Your task to perform on an android device: open app "Microsoft Authenticator" (install if not already installed) and go to login screen Image 0: 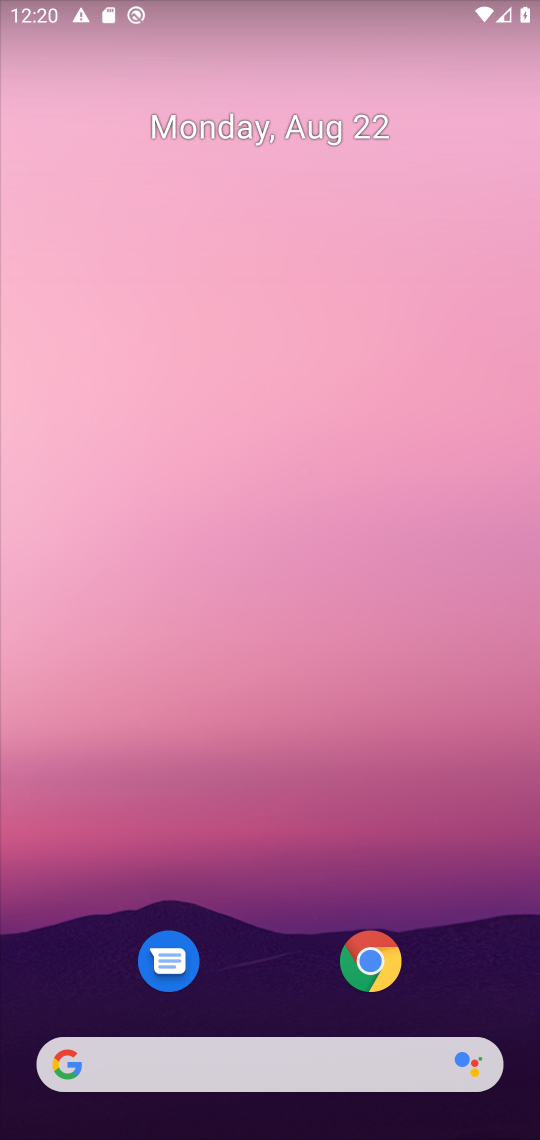
Step 0: press home button
Your task to perform on an android device: open app "Microsoft Authenticator" (install if not already installed) and go to login screen Image 1: 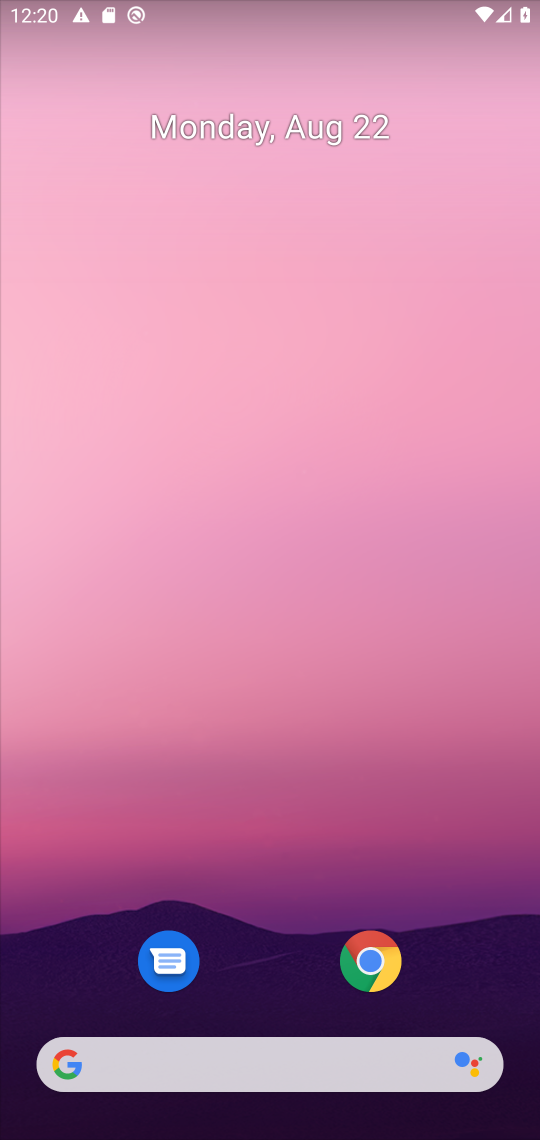
Step 1: drag from (468, 991) to (440, 71)
Your task to perform on an android device: open app "Microsoft Authenticator" (install if not already installed) and go to login screen Image 2: 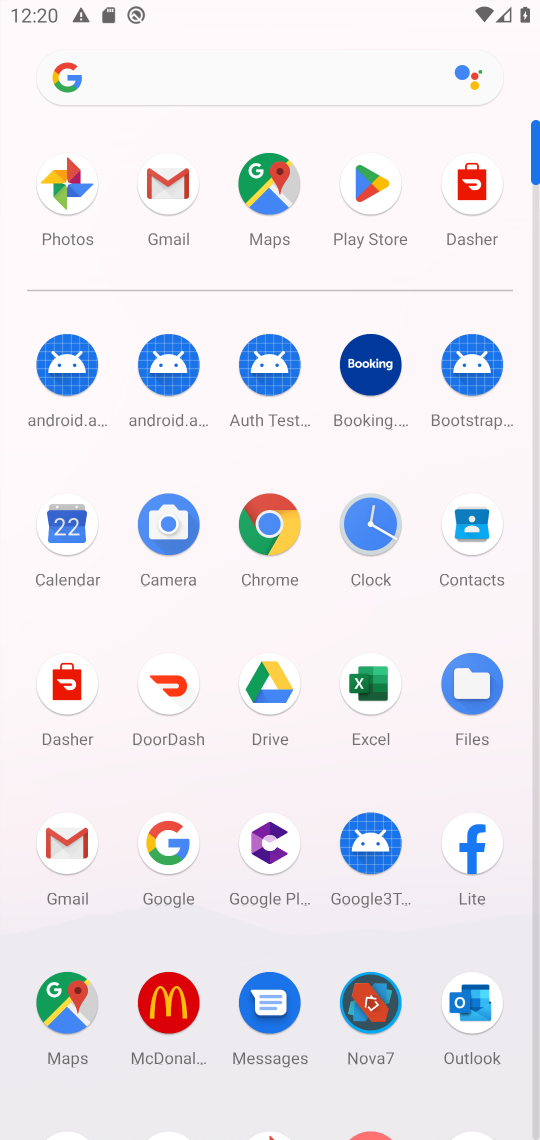
Step 2: click (376, 185)
Your task to perform on an android device: open app "Microsoft Authenticator" (install if not already installed) and go to login screen Image 3: 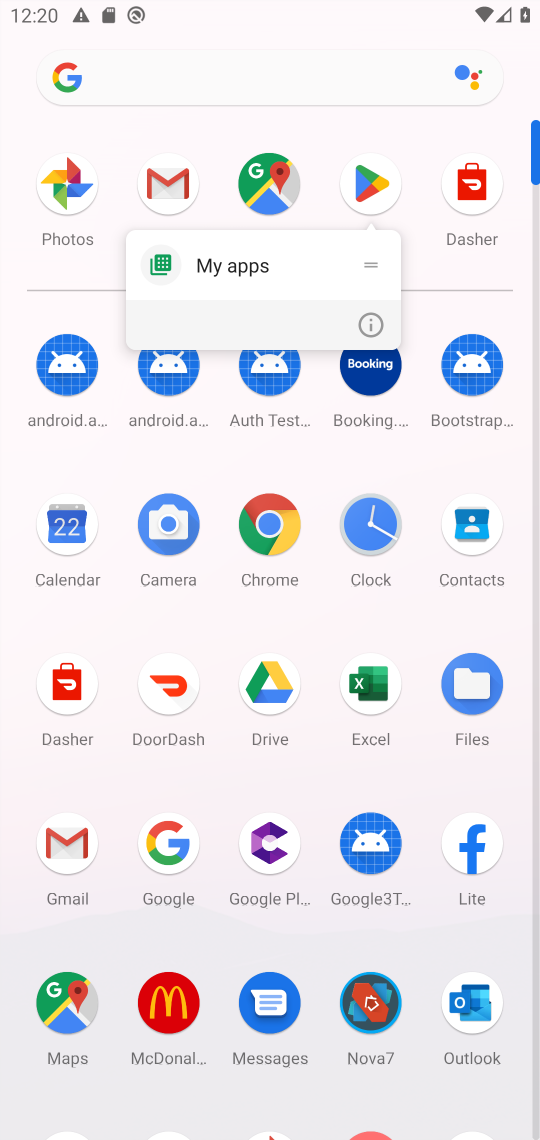
Step 3: click (376, 185)
Your task to perform on an android device: open app "Microsoft Authenticator" (install if not already installed) and go to login screen Image 4: 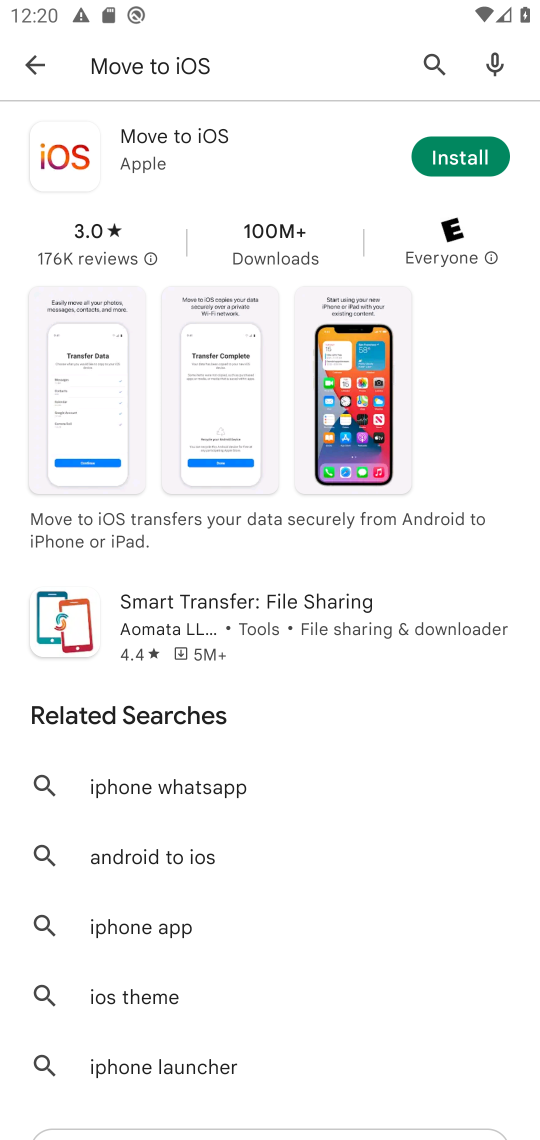
Step 4: press back button
Your task to perform on an android device: open app "Microsoft Authenticator" (install if not already installed) and go to login screen Image 5: 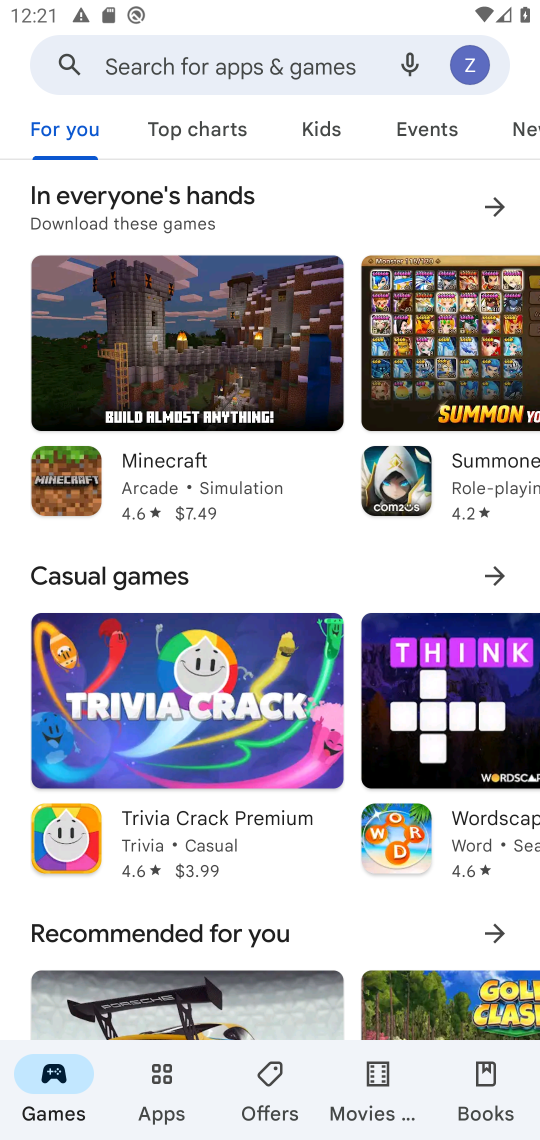
Step 5: click (277, 65)
Your task to perform on an android device: open app "Microsoft Authenticator" (install if not already installed) and go to login screen Image 6: 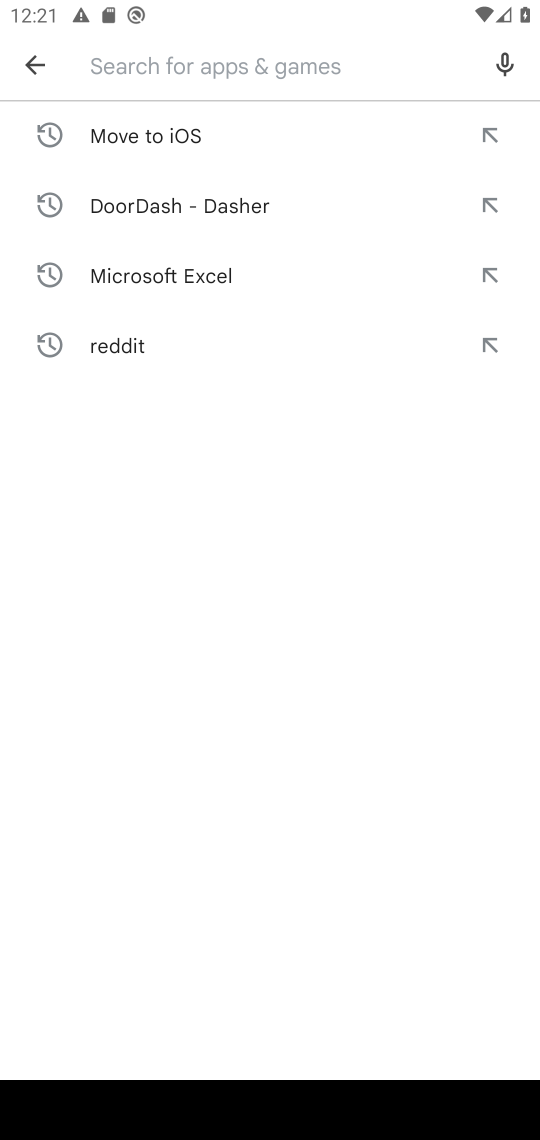
Step 6: type "Microsoft Authenticator"
Your task to perform on an android device: open app "Microsoft Authenticator" (install if not already installed) and go to login screen Image 7: 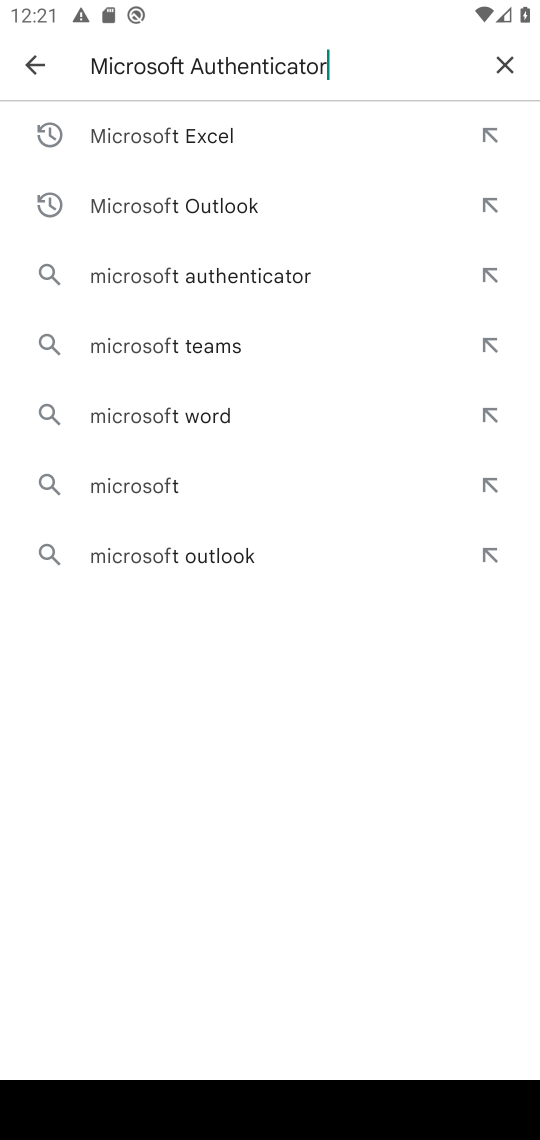
Step 7: press enter
Your task to perform on an android device: open app "Microsoft Authenticator" (install if not already installed) and go to login screen Image 8: 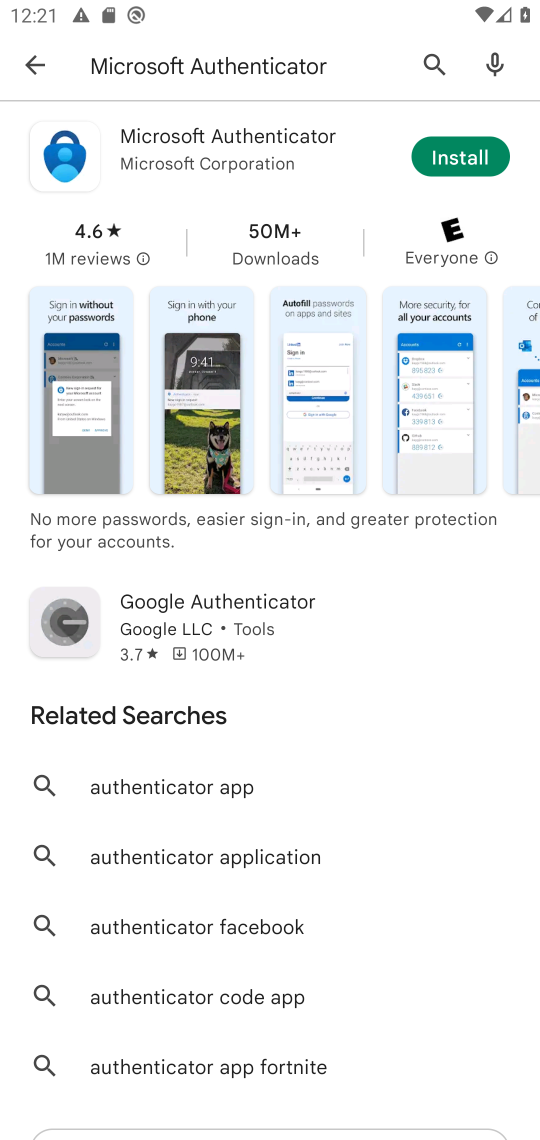
Step 8: click (458, 155)
Your task to perform on an android device: open app "Microsoft Authenticator" (install if not already installed) and go to login screen Image 9: 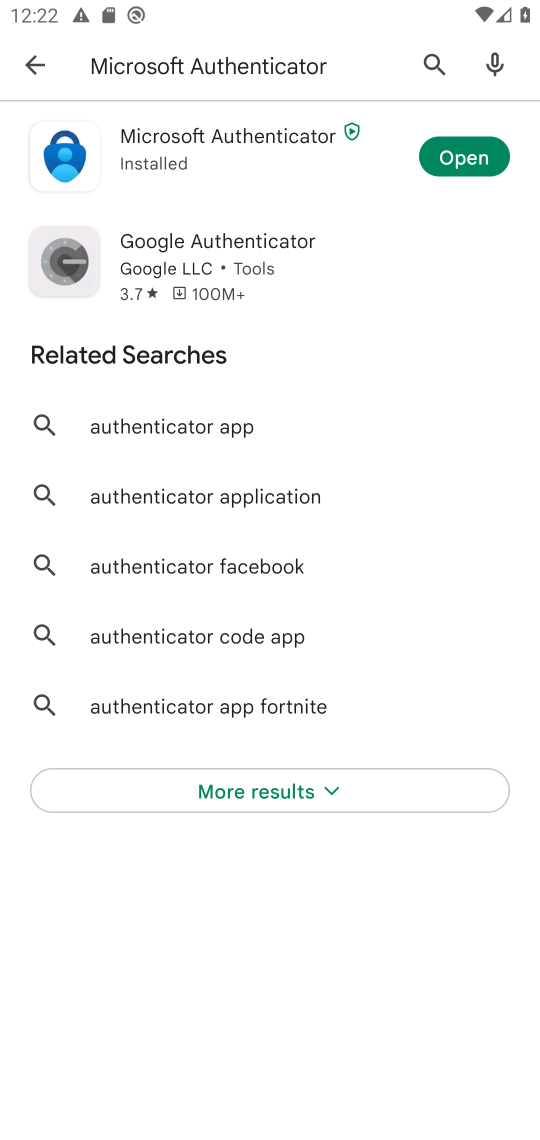
Step 9: click (478, 157)
Your task to perform on an android device: open app "Microsoft Authenticator" (install if not already installed) and go to login screen Image 10: 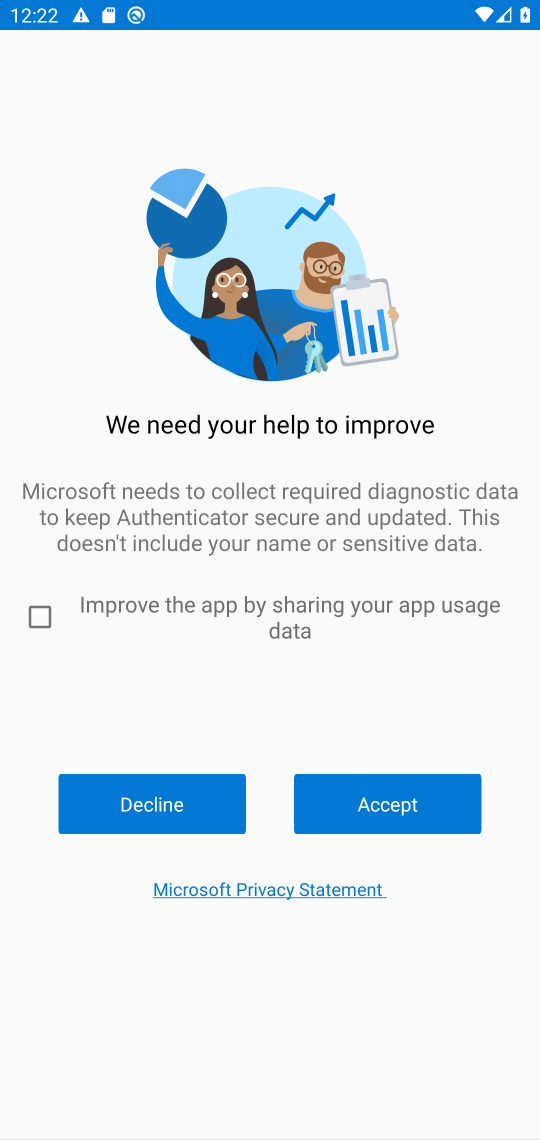
Step 10: task complete